Your task to perform on an android device: Is it going to rain tomorrow? Image 0: 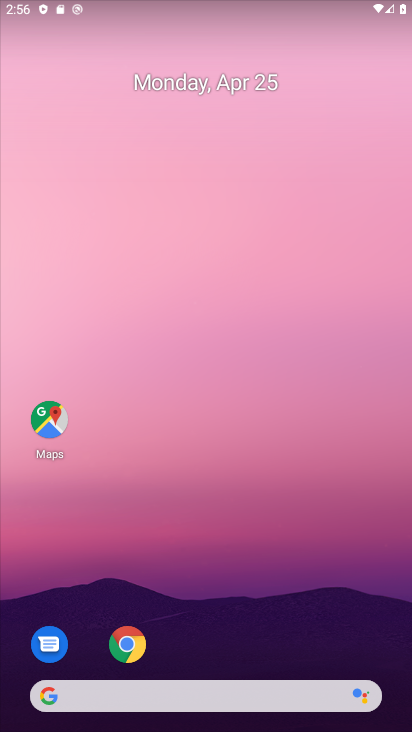
Step 0: click (132, 644)
Your task to perform on an android device: Is it going to rain tomorrow? Image 1: 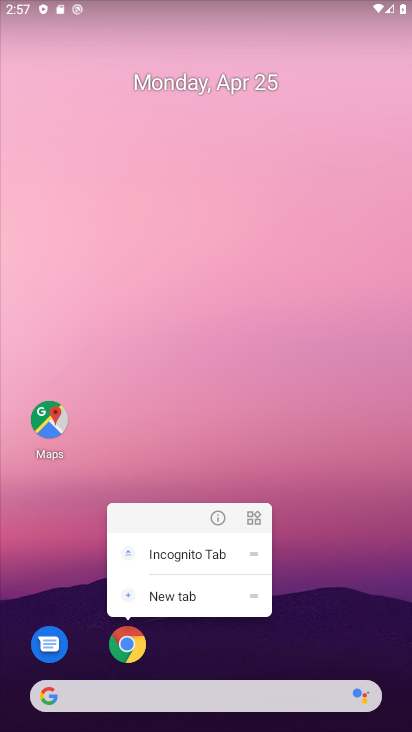
Step 1: click (132, 644)
Your task to perform on an android device: Is it going to rain tomorrow? Image 2: 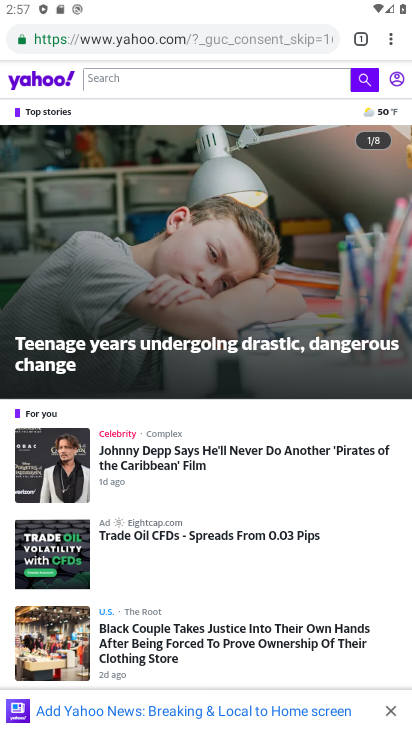
Step 2: click (267, 40)
Your task to perform on an android device: Is it going to rain tomorrow? Image 3: 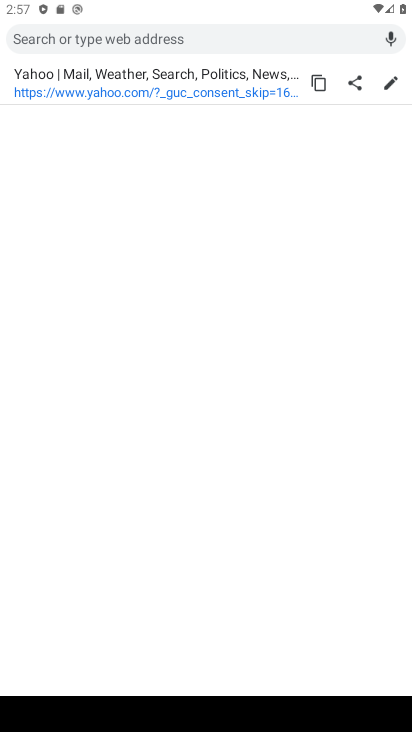
Step 3: type "Is it going to rain tomorrow?"
Your task to perform on an android device: Is it going to rain tomorrow? Image 4: 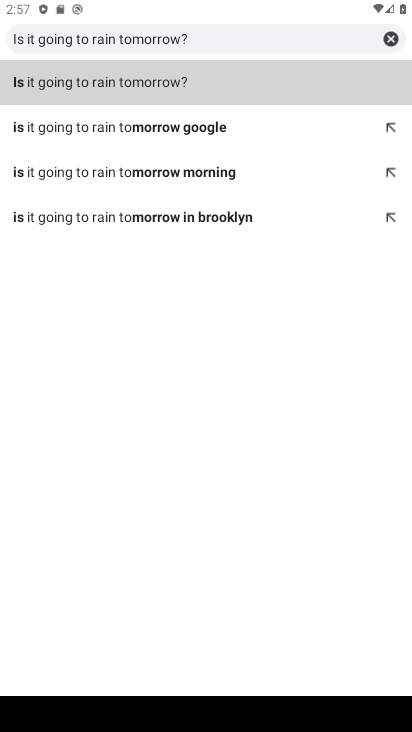
Step 4: click (173, 83)
Your task to perform on an android device: Is it going to rain tomorrow? Image 5: 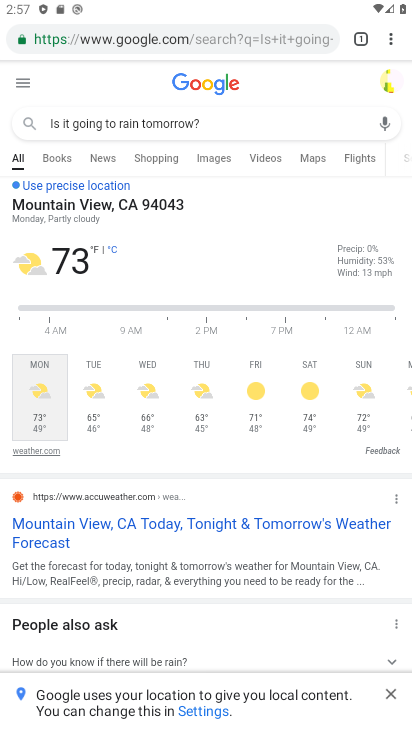
Step 5: task complete